Your task to perform on an android device: set an alarm Image 0: 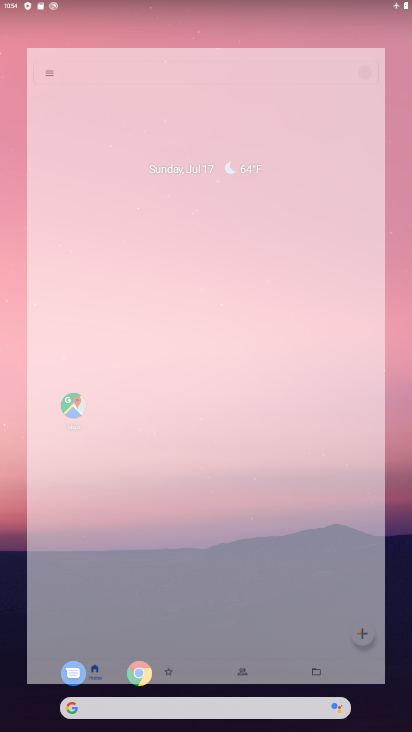
Step 0: drag from (292, 617) to (222, 192)
Your task to perform on an android device: set an alarm Image 1: 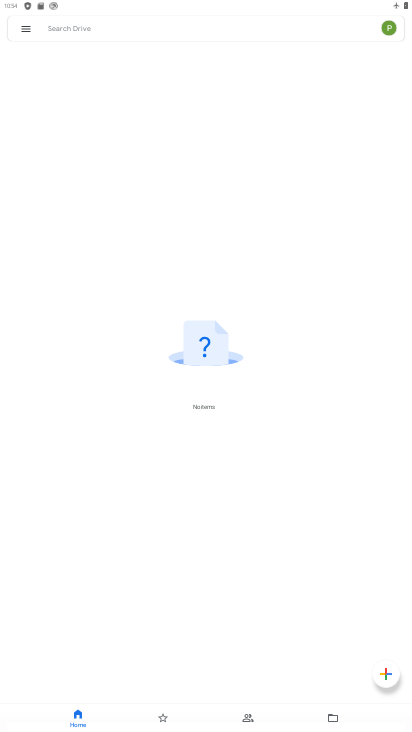
Step 1: press home button
Your task to perform on an android device: set an alarm Image 2: 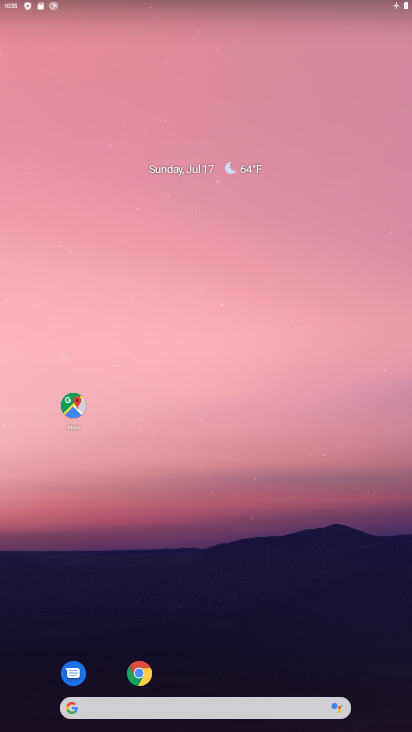
Step 2: drag from (331, 631) to (262, 154)
Your task to perform on an android device: set an alarm Image 3: 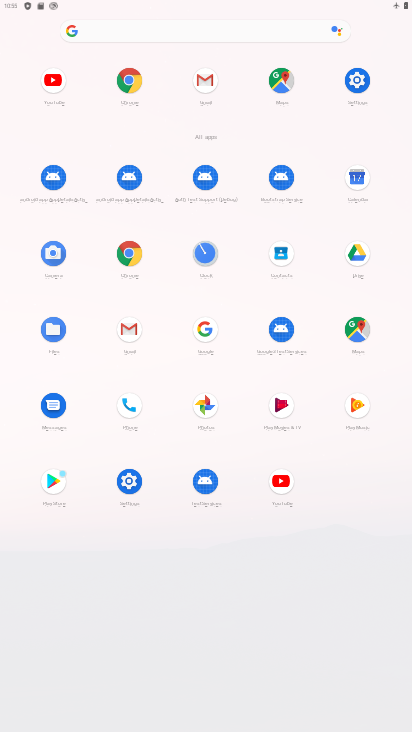
Step 3: click (197, 263)
Your task to perform on an android device: set an alarm Image 4: 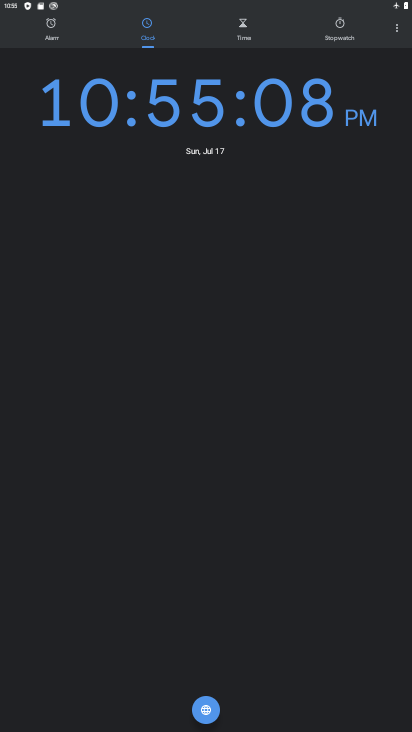
Step 4: click (56, 34)
Your task to perform on an android device: set an alarm Image 5: 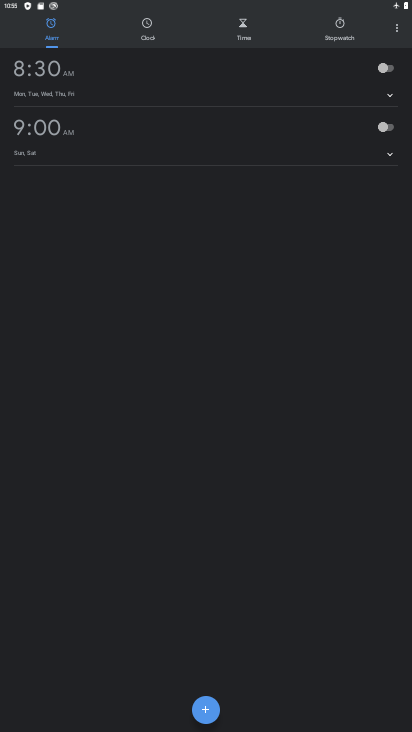
Step 5: click (214, 706)
Your task to perform on an android device: set an alarm Image 6: 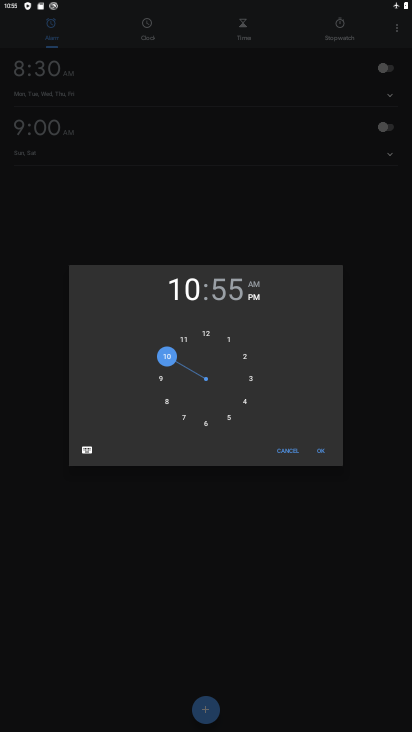
Step 6: click (327, 454)
Your task to perform on an android device: set an alarm Image 7: 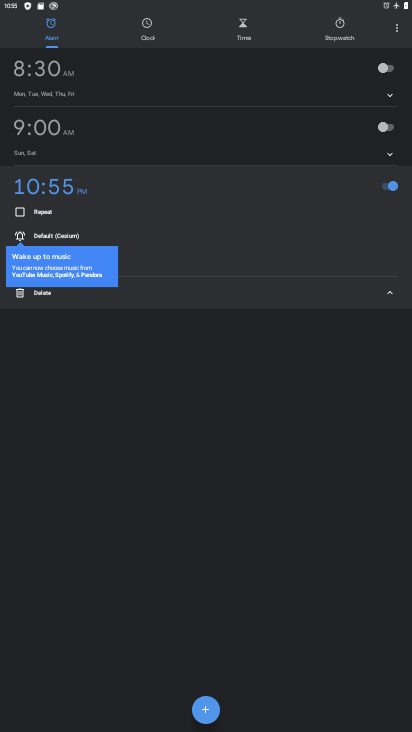
Step 7: task complete